Your task to perform on an android device: toggle pop-ups in chrome Image 0: 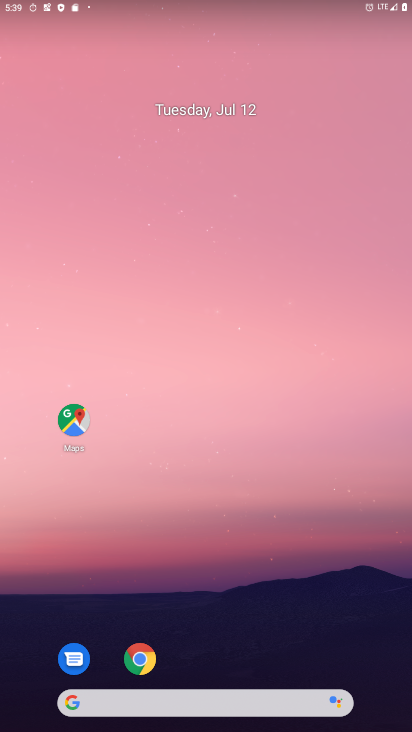
Step 0: click (134, 661)
Your task to perform on an android device: toggle pop-ups in chrome Image 1: 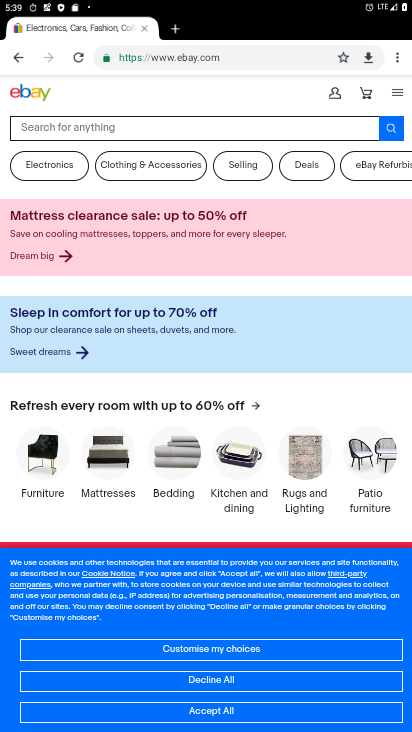
Step 1: click (395, 58)
Your task to perform on an android device: toggle pop-ups in chrome Image 2: 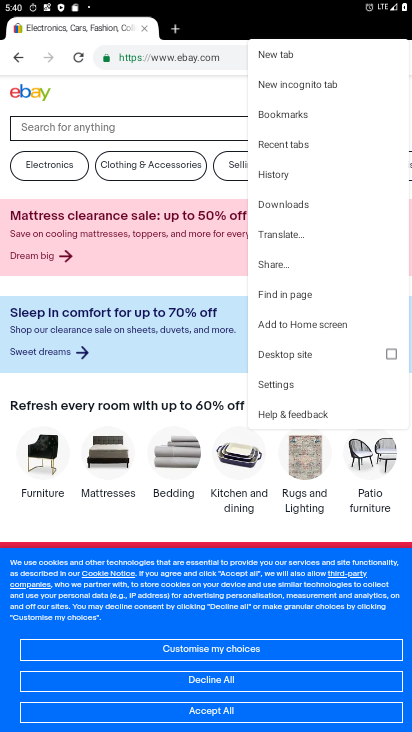
Step 2: click (281, 383)
Your task to perform on an android device: toggle pop-ups in chrome Image 3: 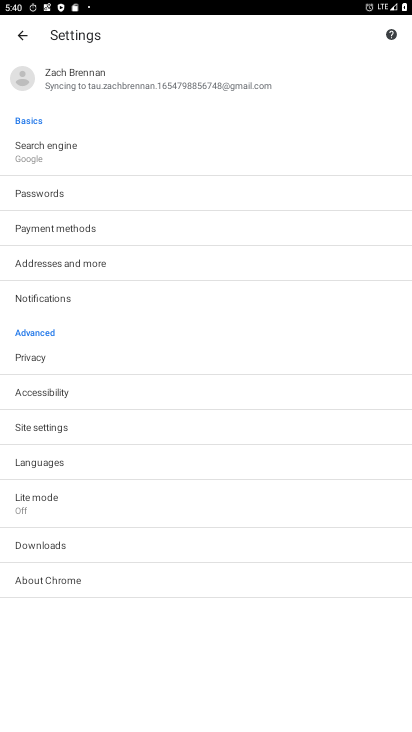
Step 3: click (41, 424)
Your task to perform on an android device: toggle pop-ups in chrome Image 4: 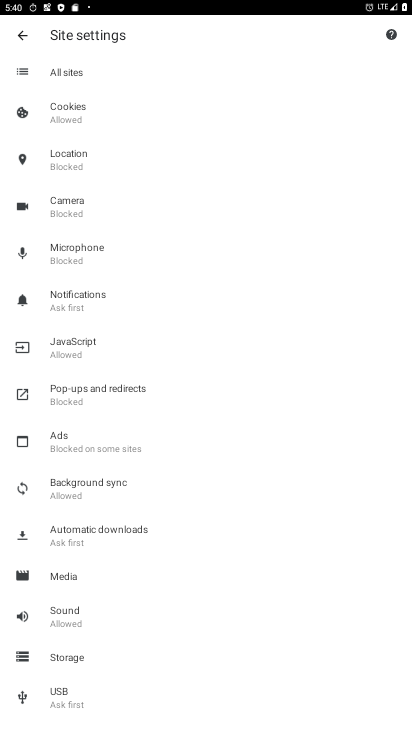
Step 4: click (86, 396)
Your task to perform on an android device: toggle pop-ups in chrome Image 5: 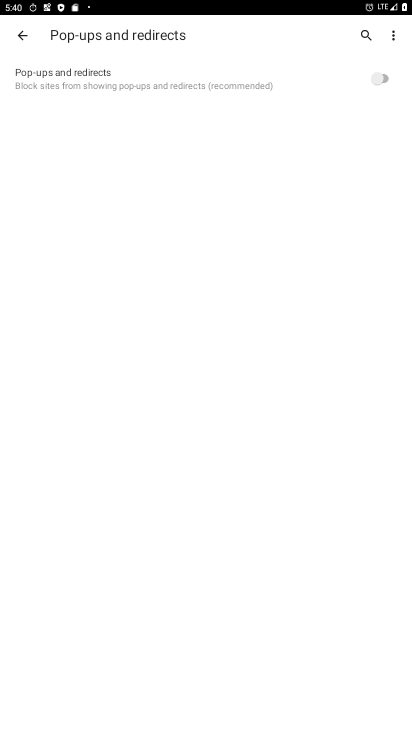
Step 5: click (384, 85)
Your task to perform on an android device: toggle pop-ups in chrome Image 6: 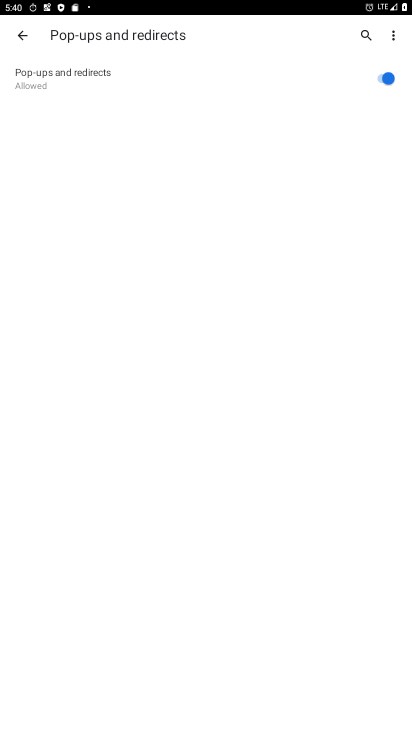
Step 6: task complete